Your task to perform on an android device: make emails show in primary in the gmail app Image 0: 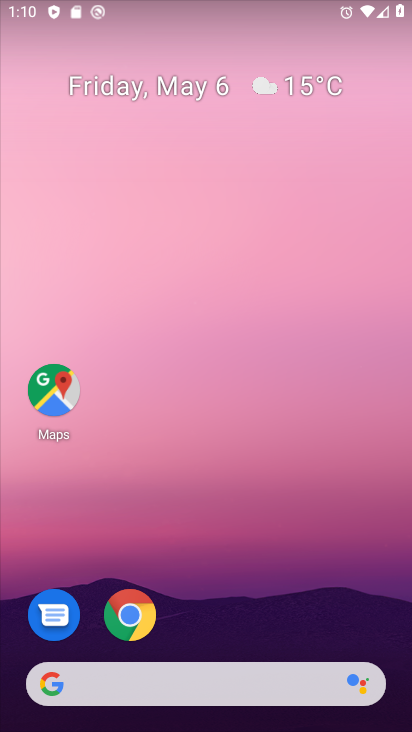
Step 0: drag from (313, 564) to (342, 37)
Your task to perform on an android device: make emails show in primary in the gmail app Image 1: 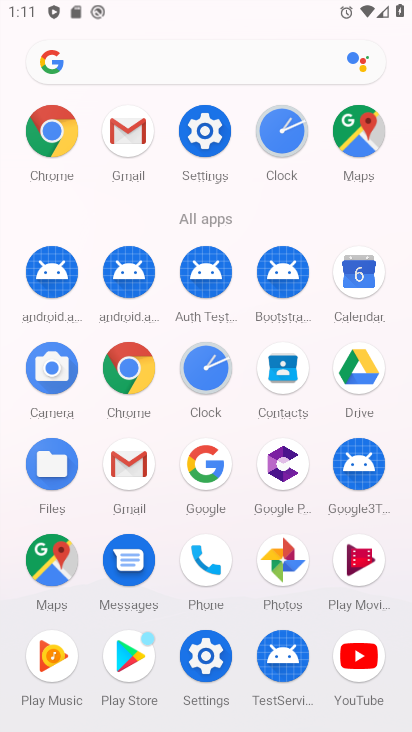
Step 1: click (123, 119)
Your task to perform on an android device: make emails show in primary in the gmail app Image 2: 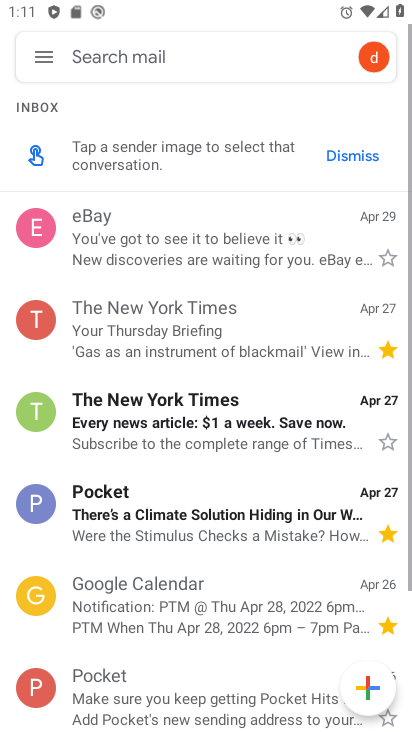
Step 2: click (43, 57)
Your task to perform on an android device: make emails show in primary in the gmail app Image 3: 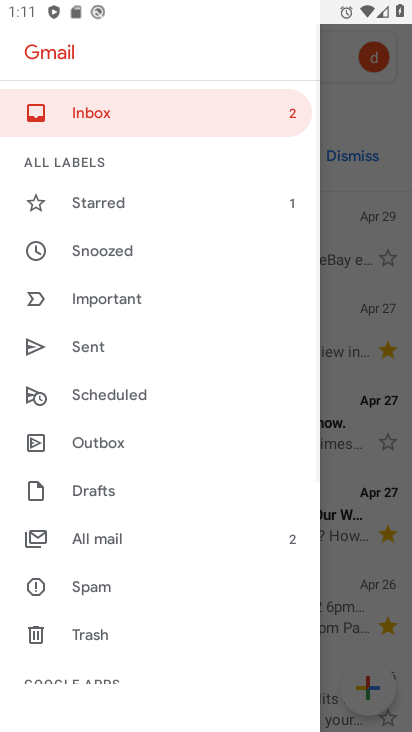
Step 3: drag from (142, 578) to (254, 193)
Your task to perform on an android device: make emails show in primary in the gmail app Image 4: 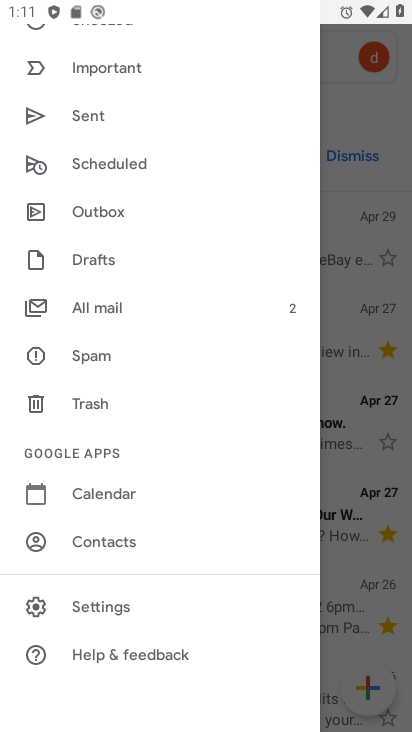
Step 4: click (105, 598)
Your task to perform on an android device: make emails show in primary in the gmail app Image 5: 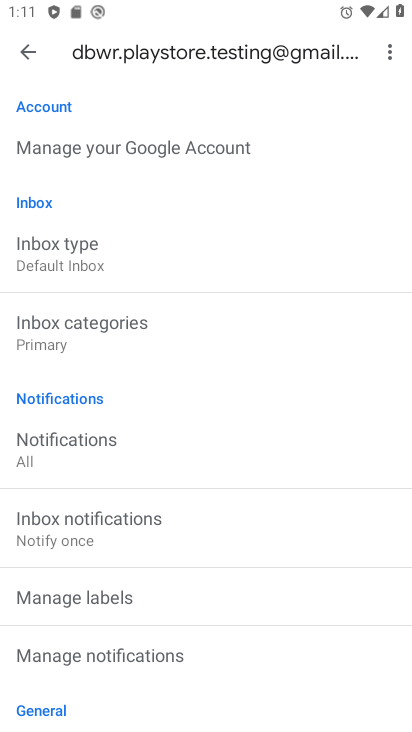
Step 5: task complete